Your task to perform on an android device: turn notification dots off Image 0: 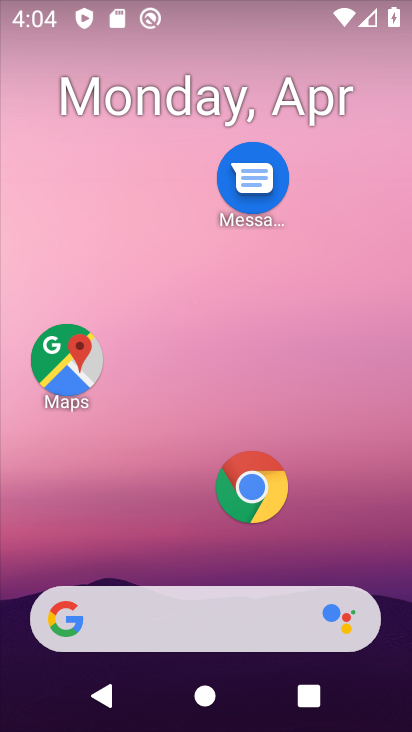
Step 0: drag from (178, 560) to (248, 79)
Your task to perform on an android device: turn notification dots off Image 1: 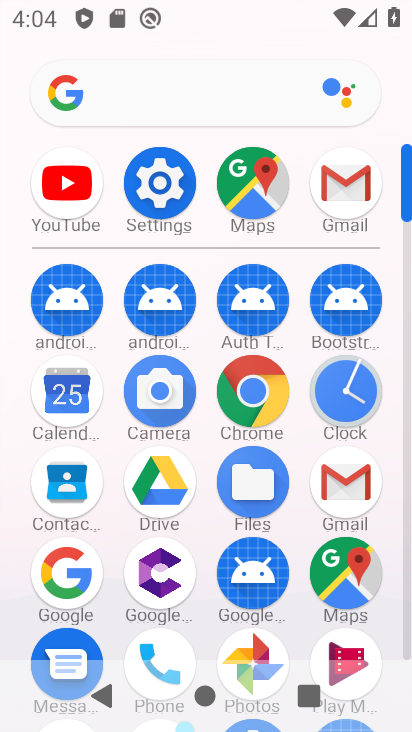
Step 1: click (152, 199)
Your task to perform on an android device: turn notification dots off Image 2: 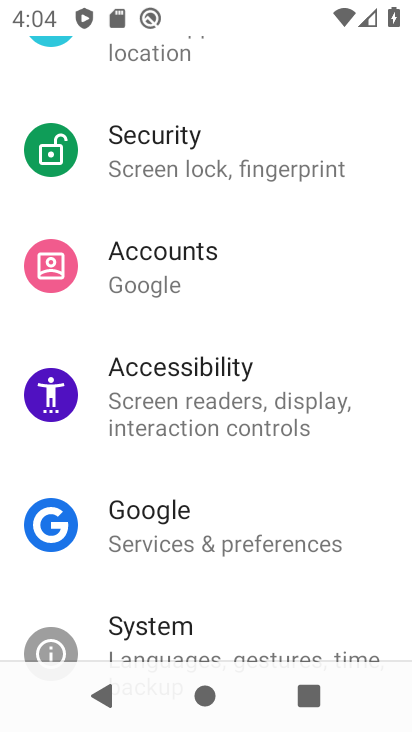
Step 2: drag from (174, 562) to (217, 222)
Your task to perform on an android device: turn notification dots off Image 3: 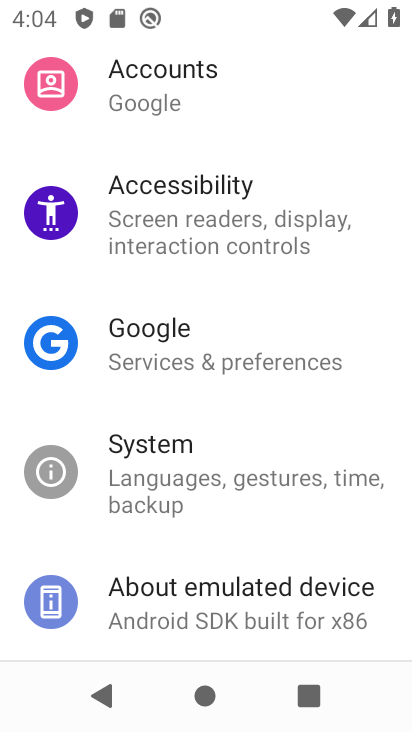
Step 3: drag from (209, 420) to (267, 158)
Your task to perform on an android device: turn notification dots off Image 4: 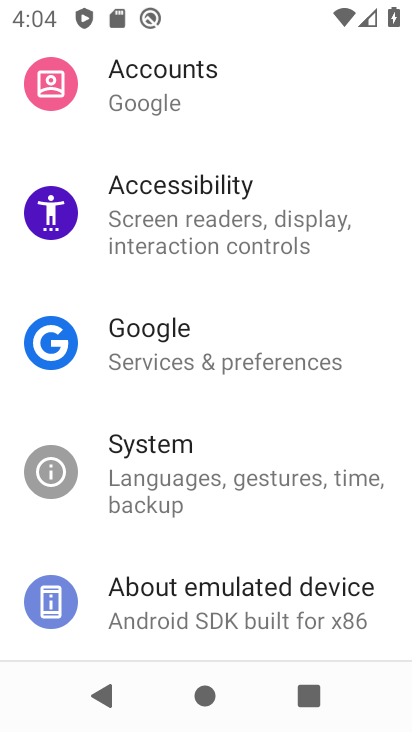
Step 4: drag from (271, 151) to (272, 292)
Your task to perform on an android device: turn notification dots off Image 5: 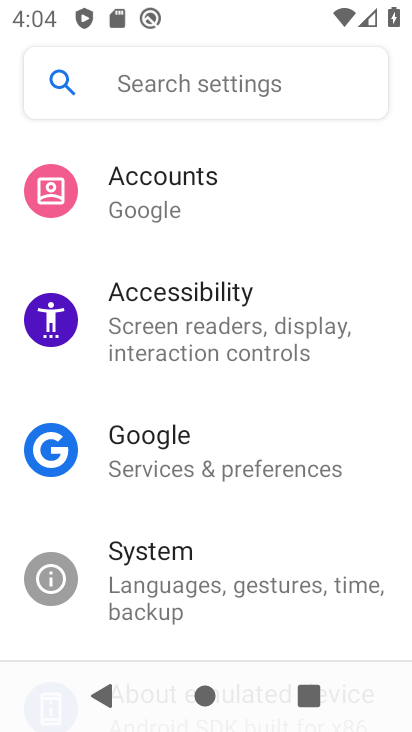
Step 5: drag from (272, 292) to (294, 456)
Your task to perform on an android device: turn notification dots off Image 6: 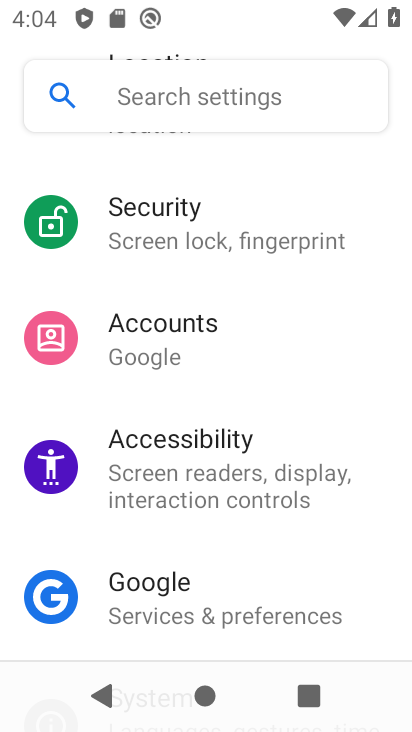
Step 6: drag from (266, 258) to (258, 403)
Your task to perform on an android device: turn notification dots off Image 7: 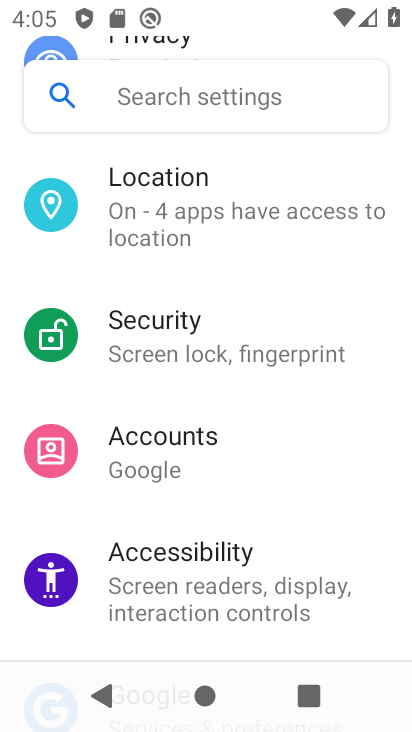
Step 7: drag from (267, 247) to (264, 366)
Your task to perform on an android device: turn notification dots off Image 8: 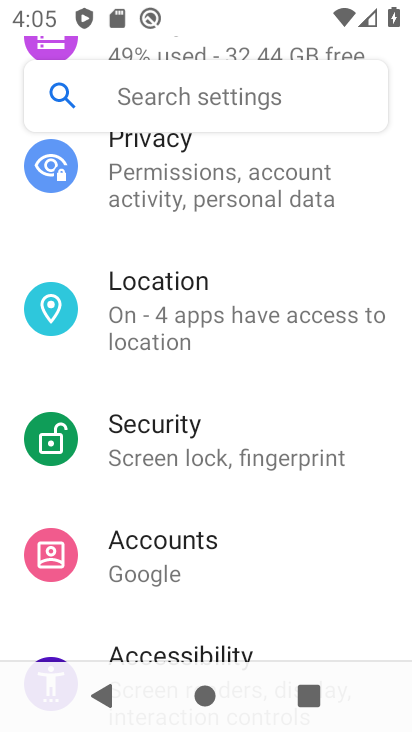
Step 8: drag from (259, 139) to (245, 252)
Your task to perform on an android device: turn notification dots off Image 9: 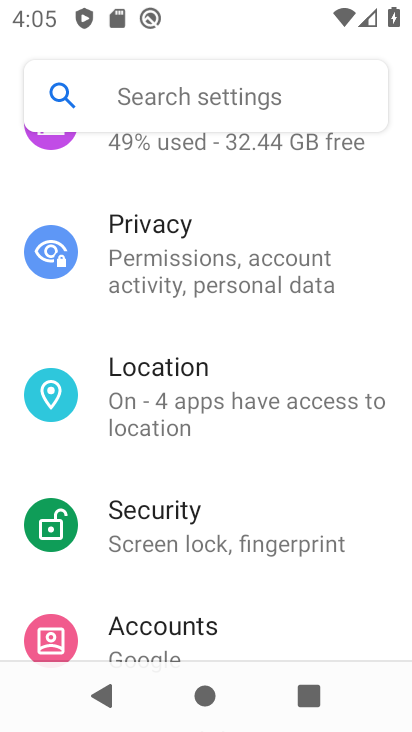
Step 9: drag from (248, 234) to (240, 295)
Your task to perform on an android device: turn notification dots off Image 10: 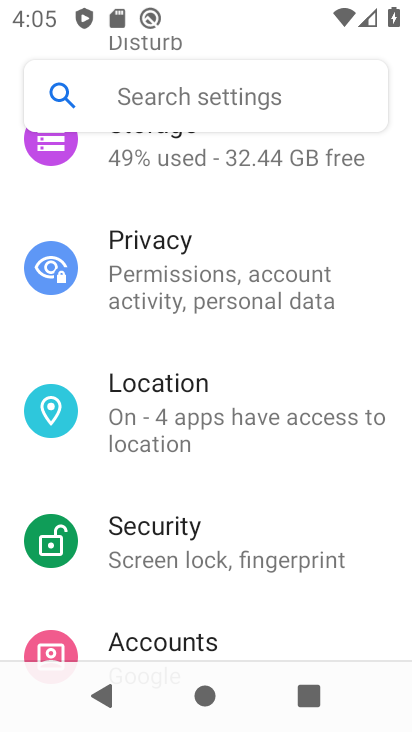
Step 10: drag from (241, 372) to (220, 521)
Your task to perform on an android device: turn notification dots off Image 11: 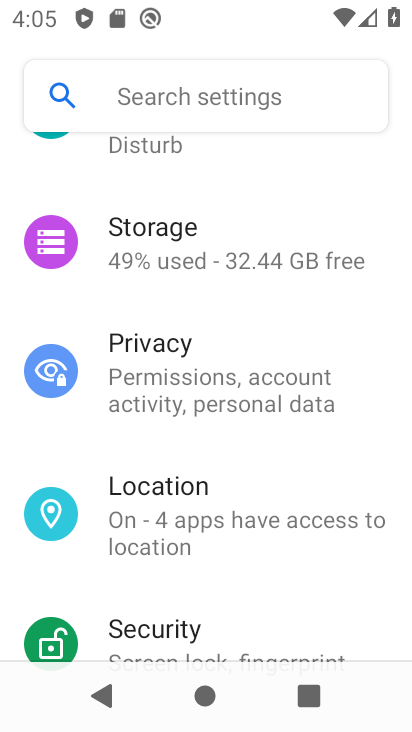
Step 11: drag from (192, 326) to (190, 486)
Your task to perform on an android device: turn notification dots off Image 12: 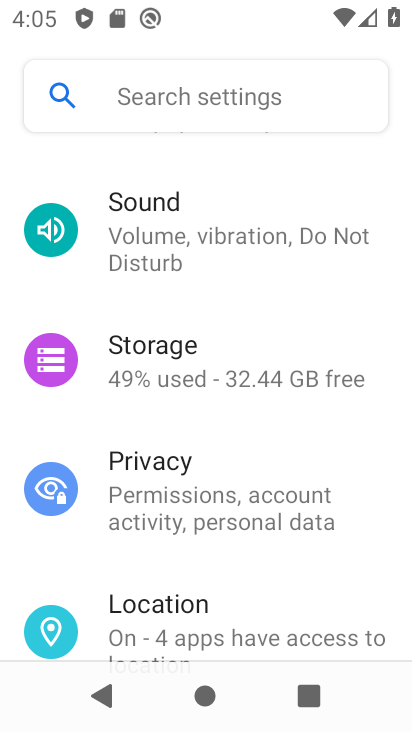
Step 12: drag from (190, 409) to (186, 535)
Your task to perform on an android device: turn notification dots off Image 13: 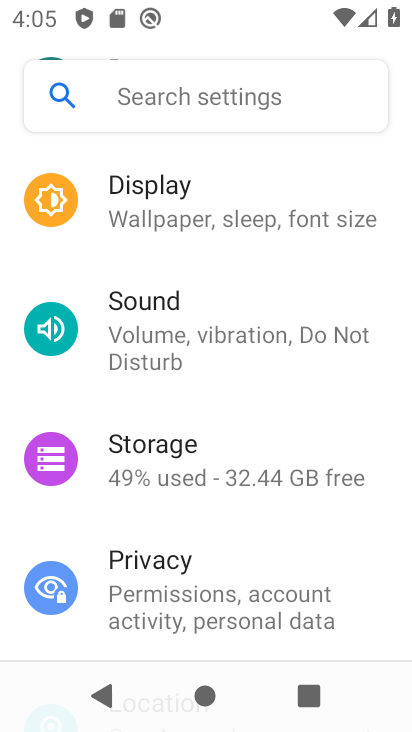
Step 13: drag from (259, 282) to (265, 730)
Your task to perform on an android device: turn notification dots off Image 14: 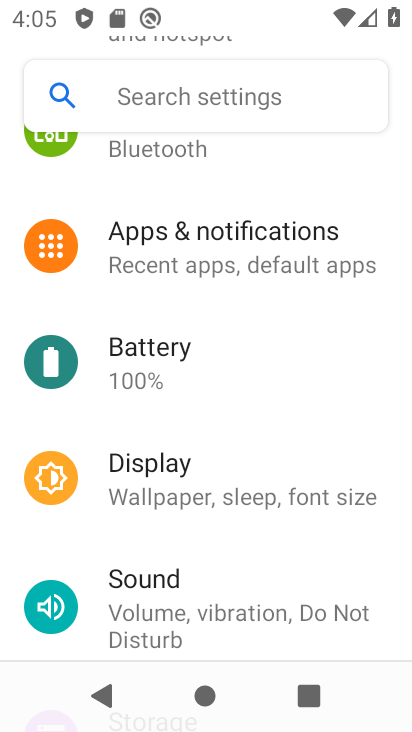
Step 14: drag from (273, 227) to (285, 543)
Your task to perform on an android device: turn notification dots off Image 15: 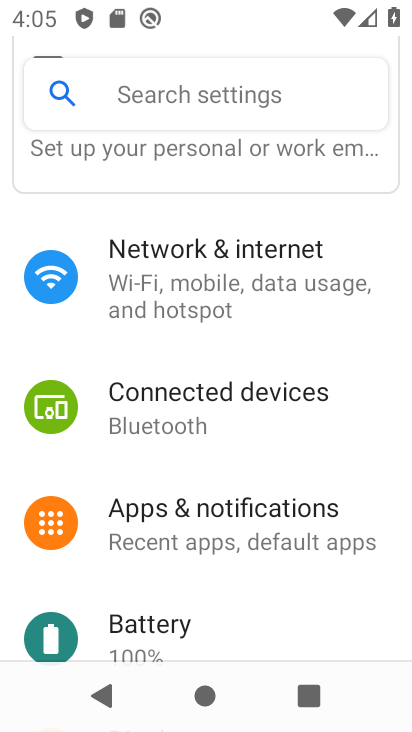
Step 15: click (222, 521)
Your task to perform on an android device: turn notification dots off Image 16: 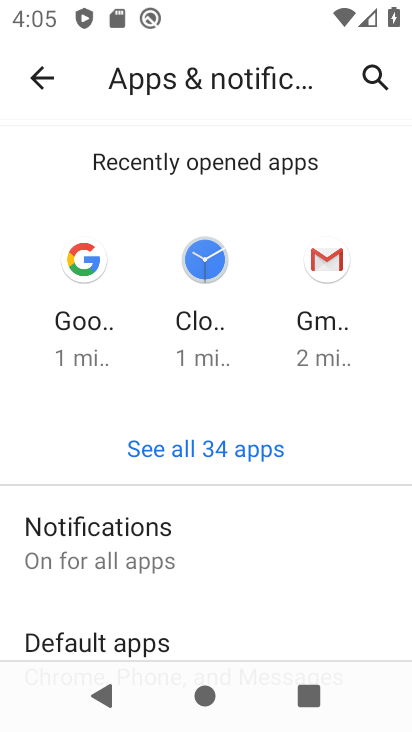
Step 16: drag from (169, 569) to (228, 238)
Your task to perform on an android device: turn notification dots off Image 17: 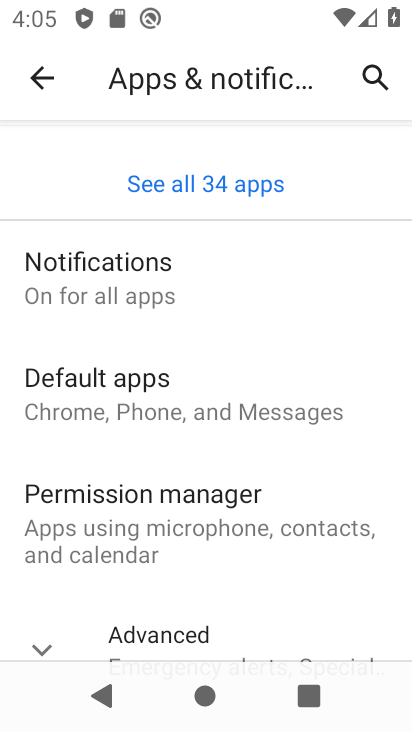
Step 17: click (129, 277)
Your task to perform on an android device: turn notification dots off Image 18: 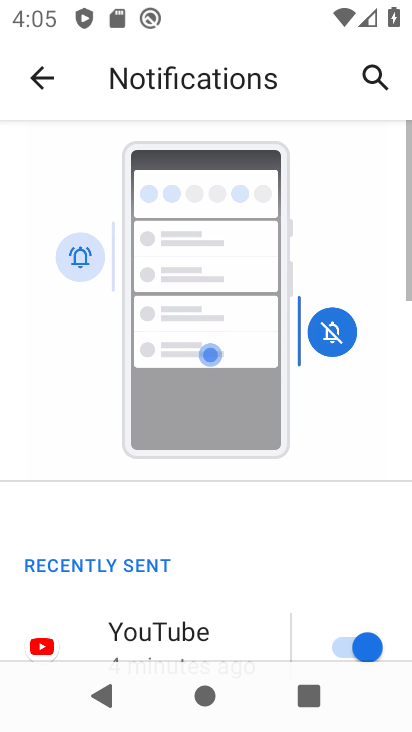
Step 18: drag from (188, 615) to (238, 242)
Your task to perform on an android device: turn notification dots off Image 19: 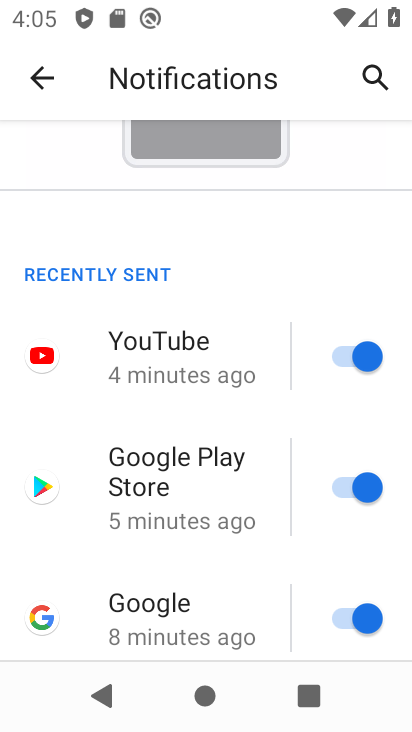
Step 19: drag from (228, 574) to (336, 114)
Your task to perform on an android device: turn notification dots off Image 20: 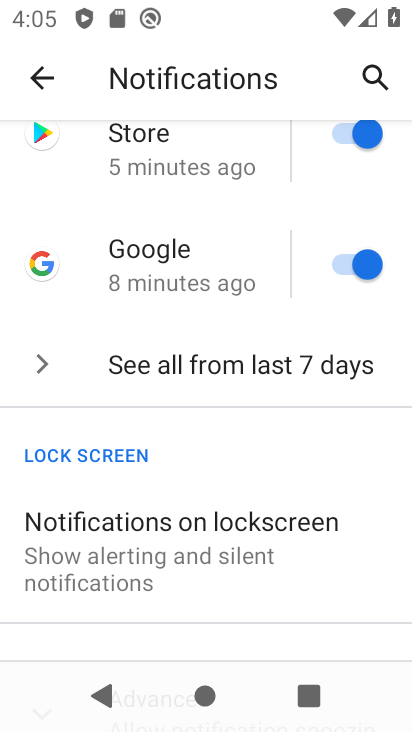
Step 20: drag from (190, 568) to (292, 92)
Your task to perform on an android device: turn notification dots off Image 21: 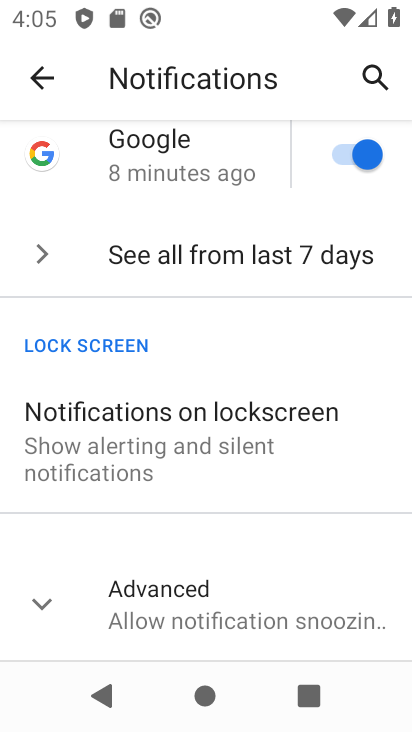
Step 21: click (160, 597)
Your task to perform on an android device: turn notification dots off Image 22: 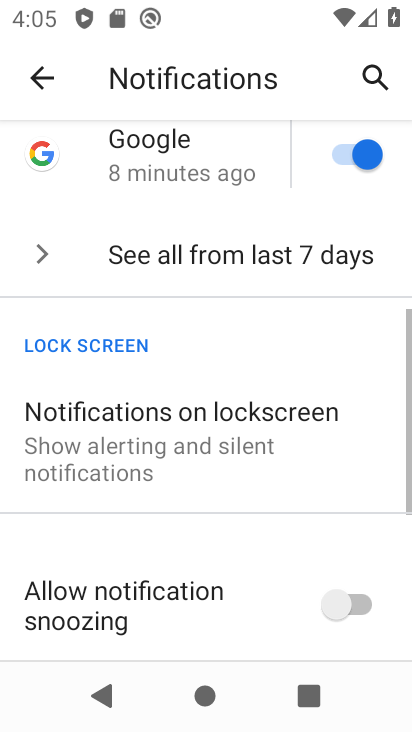
Step 22: drag from (173, 611) to (273, 164)
Your task to perform on an android device: turn notification dots off Image 23: 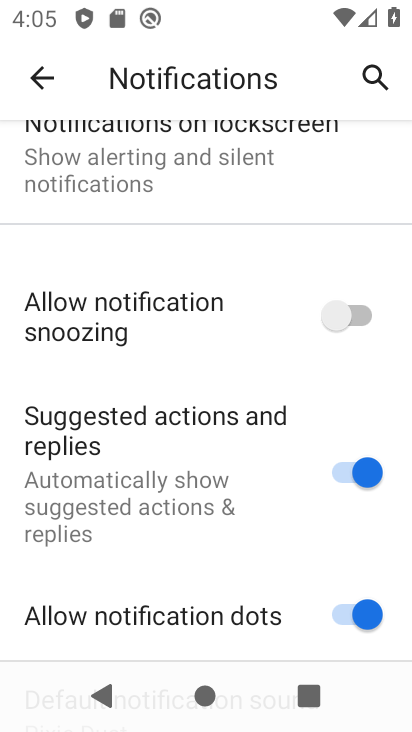
Step 23: drag from (186, 465) to (238, 118)
Your task to perform on an android device: turn notification dots off Image 24: 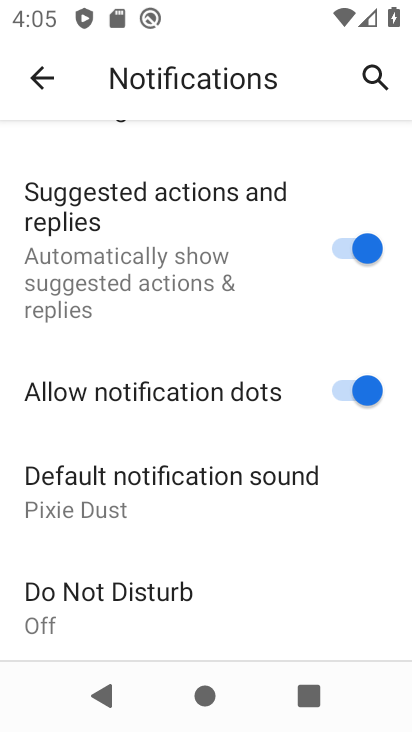
Step 24: click (327, 384)
Your task to perform on an android device: turn notification dots off Image 25: 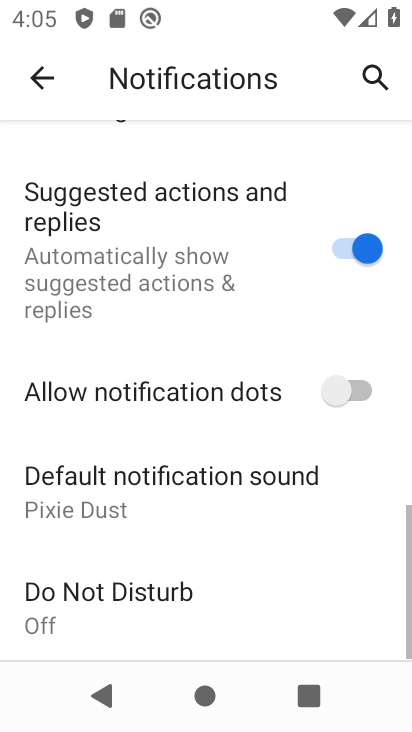
Step 25: task complete